Your task to perform on an android device: toggle wifi Image 0: 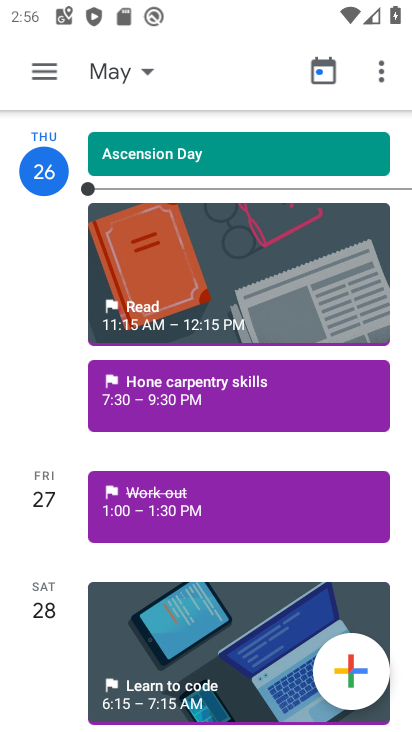
Step 0: press home button
Your task to perform on an android device: toggle wifi Image 1: 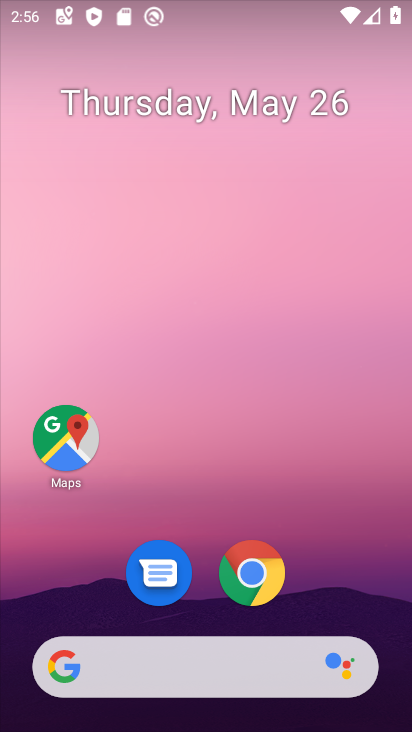
Step 1: drag from (248, 686) to (273, 128)
Your task to perform on an android device: toggle wifi Image 2: 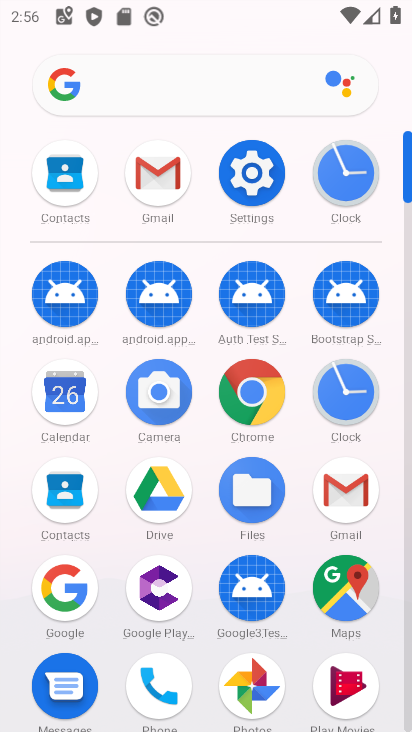
Step 2: click (279, 175)
Your task to perform on an android device: toggle wifi Image 3: 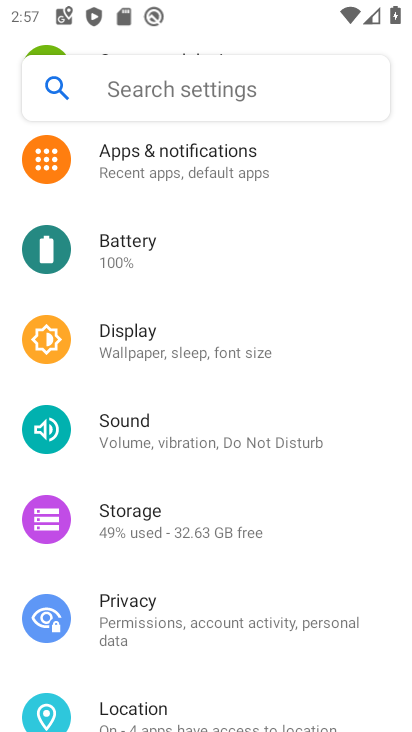
Step 3: drag from (190, 438) to (210, 624)
Your task to perform on an android device: toggle wifi Image 4: 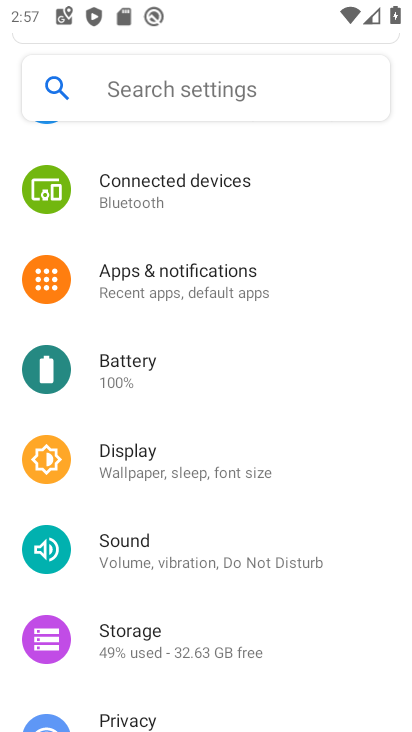
Step 4: drag from (178, 206) to (189, 651)
Your task to perform on an android device: toggle wifi Image 5: 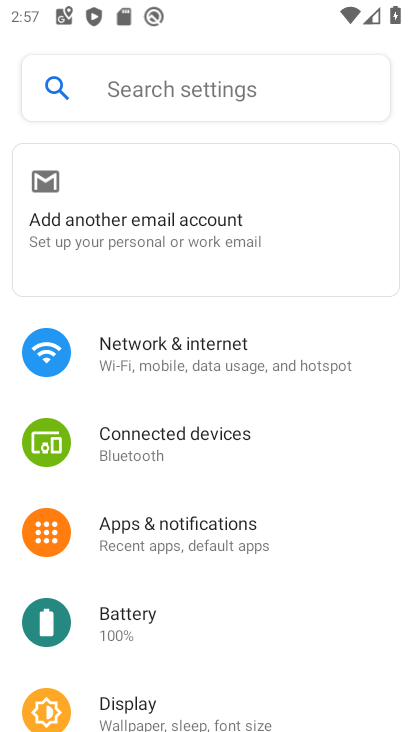
Step 5: click (159, 354)
Your task to perform on an android device: toggle wifi Image 6: 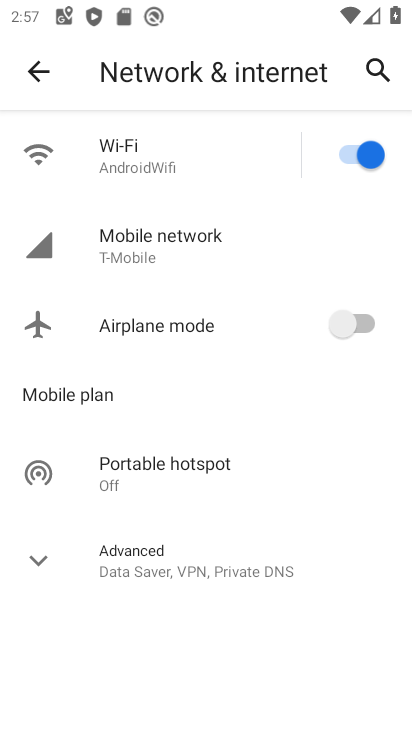
Step 6: click (358, 148)
Your task to perform on an android device: toggle wifi Image 7: 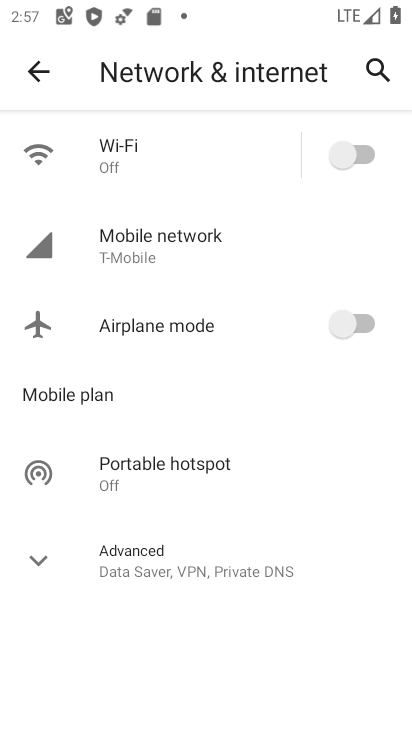
Step 7: task complete